Your task to perform on an android device: Turn off the flashlight Image 0: 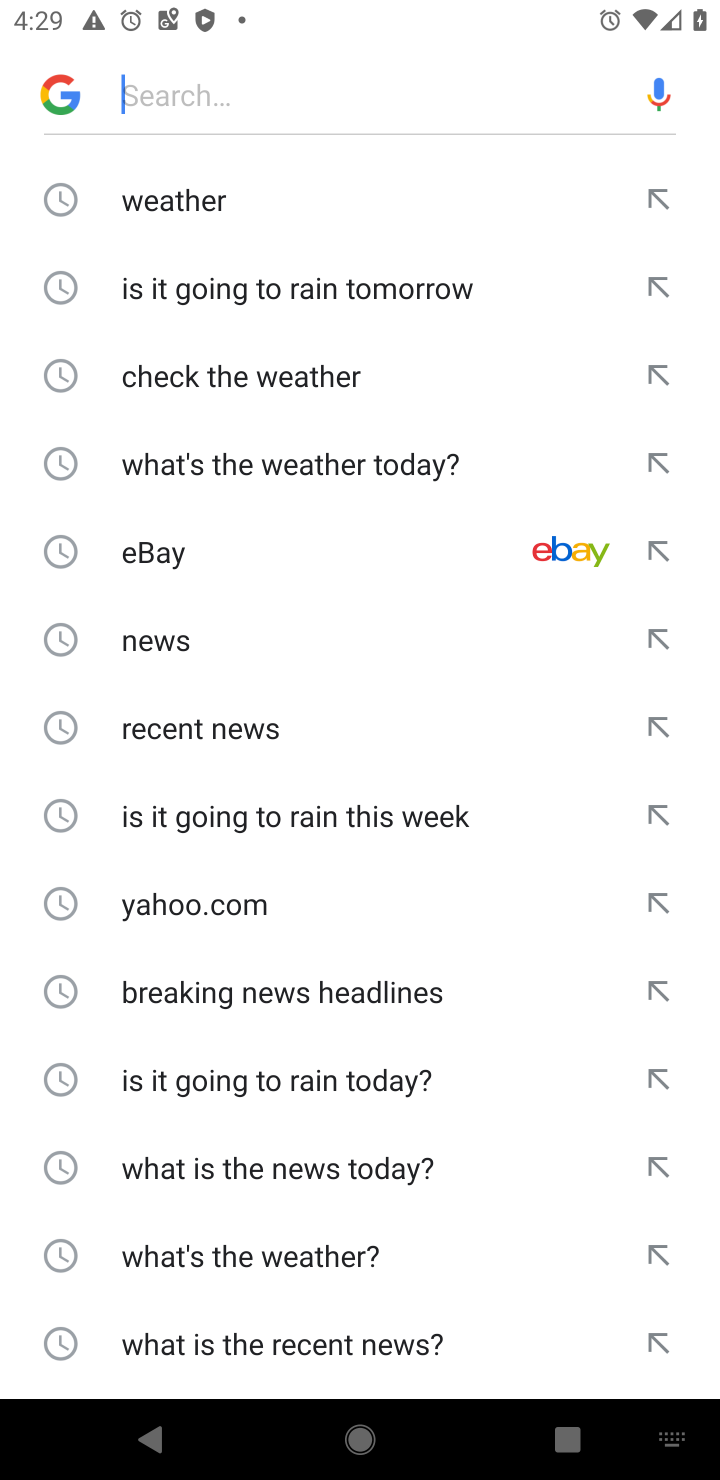
Step 0: press home button
Your task to perform on an android device: Turn off the flashlight Image 1: 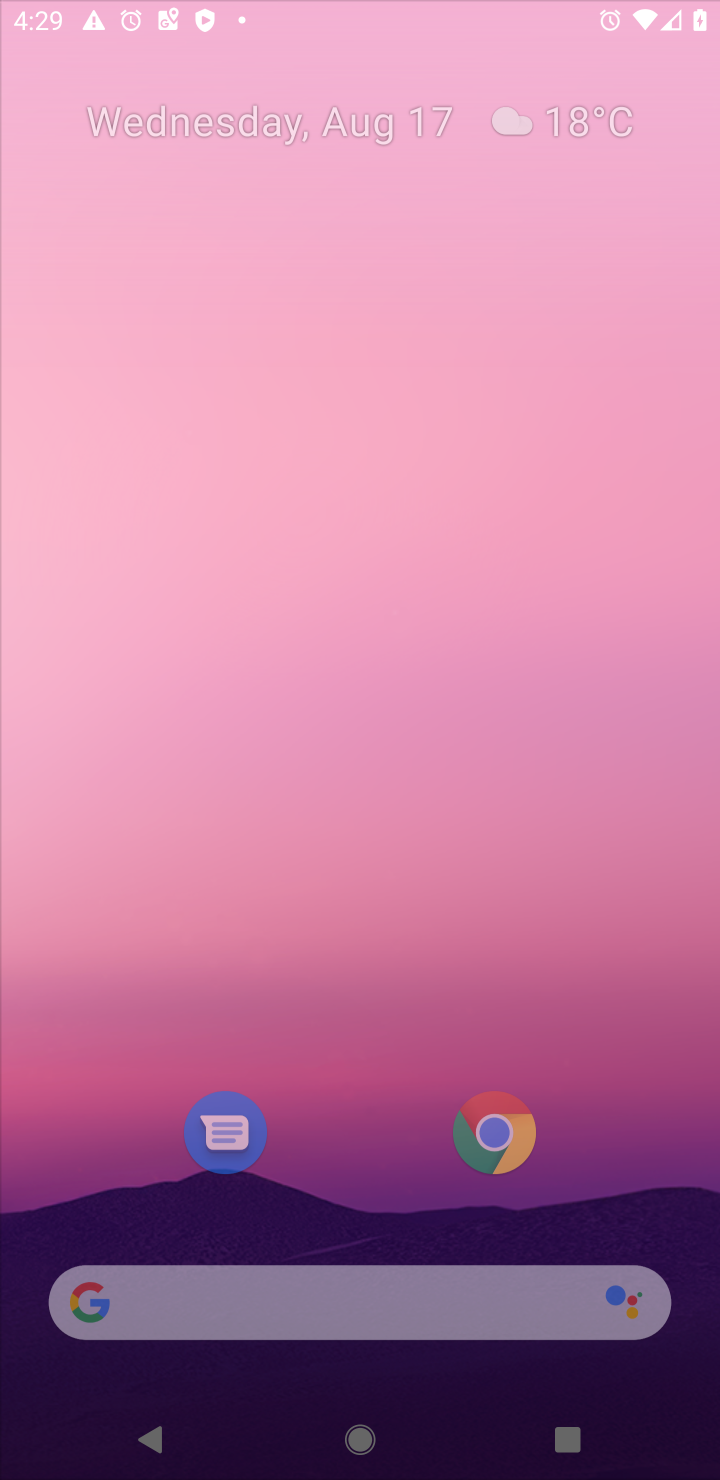
Step 1: task complete